Your task to perform on an android device: turn pop-ups off in chrome Image 0: 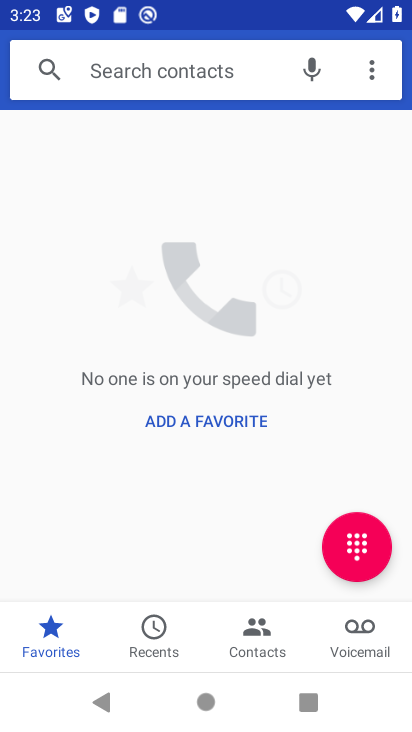
Step 0: press back button
Your task to perform on an android device: turn pop-ups off in chrome Image 1: 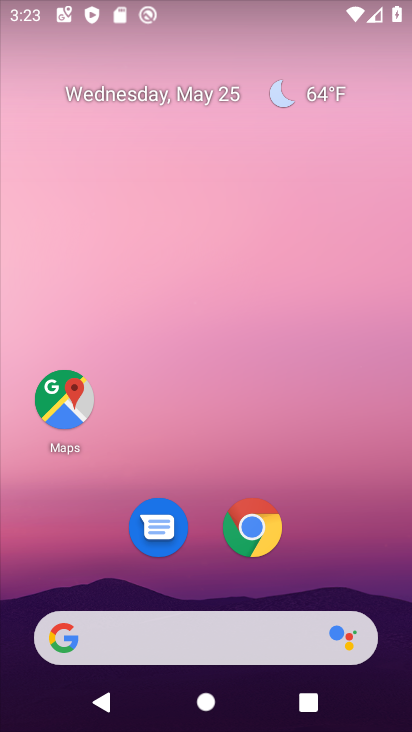
Step 1: click (250, 533)
Your task to perform on an android device: turn pop-ups off in chrome Image 2: 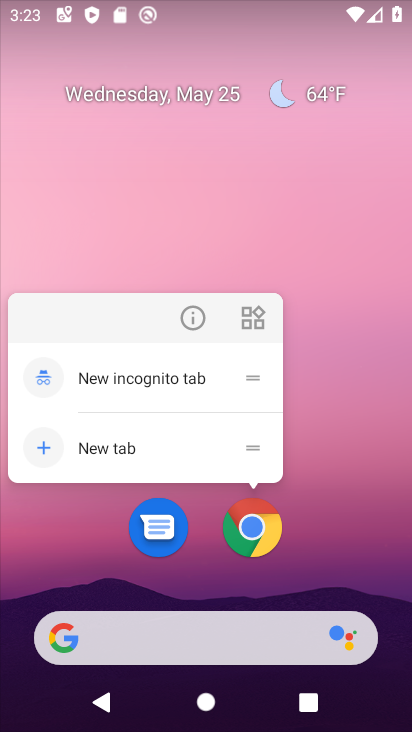
Step 2: click (249, 521)
Your task to perform on an android device: turn pop-ups off in chrome Image 3: 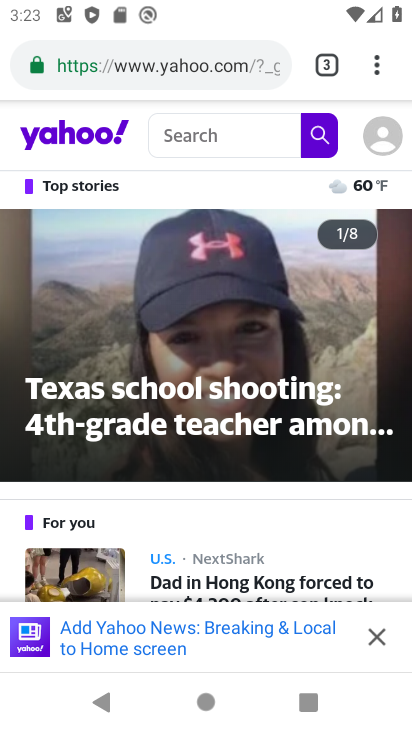
Step 3: drag from (373, 58) to (142, 567)
Your task to perform on an android device: turn pop-ups off in chrome Image 4: 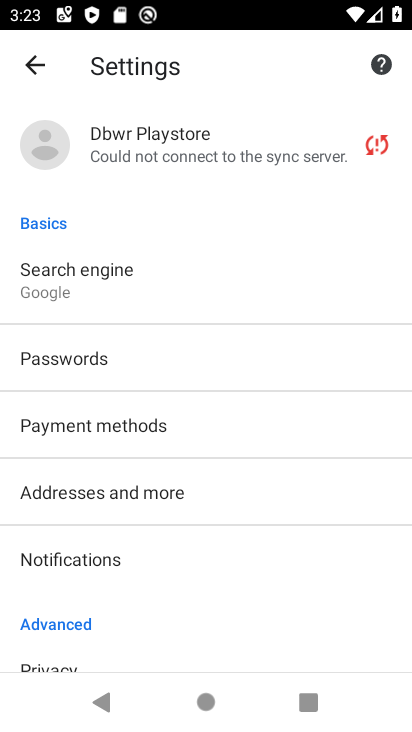
Step 4: drag from (222, 607) to (267, 102)
Your task to perform on an android device: turn pop-ups off in chrome Image 5: 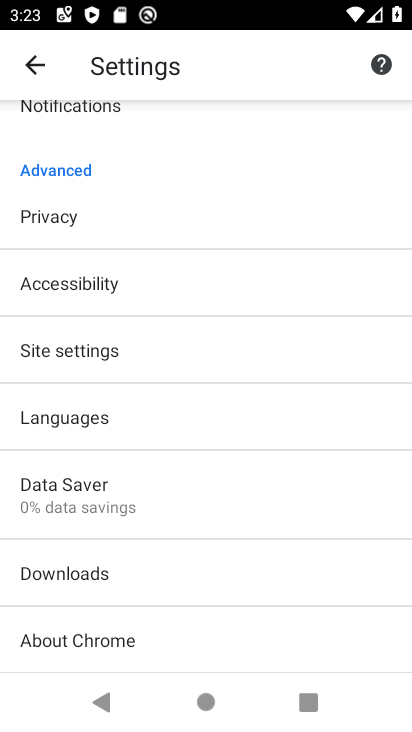
Step 5: click (75, 352)
Your task to perform on an android device: turn pop-ups off in chrome Image 6: 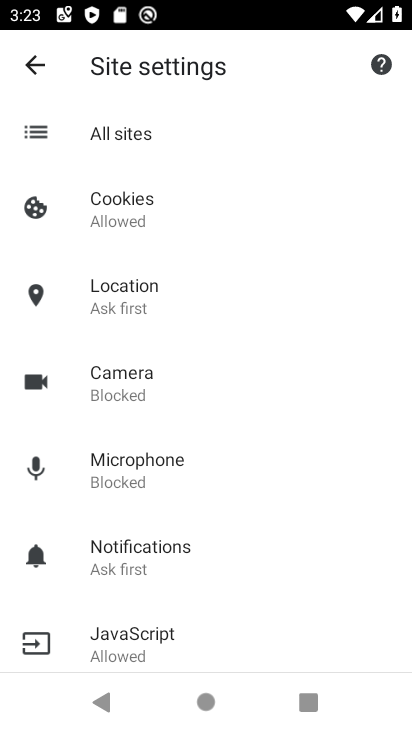
Step 6: drag from (156, 636) to (224, 131)
Your task to perform on an android device: turn pop-ups off in chrome Image 7: 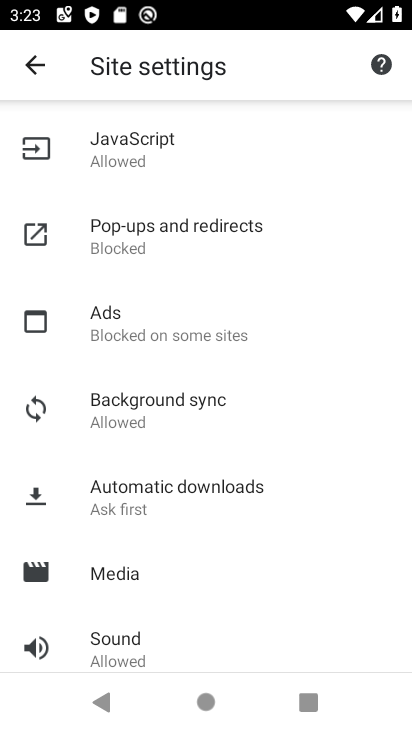
Step 7: click (124, 232)
Your task to perform on an android device: turn pop-ups off in chrome Image 8: 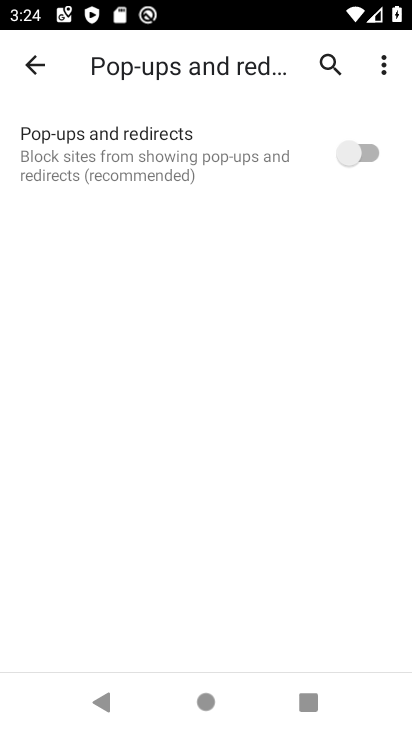
Step 8: task complete